Your task to perform on an android device: Open settings on Google Maps Image 0: 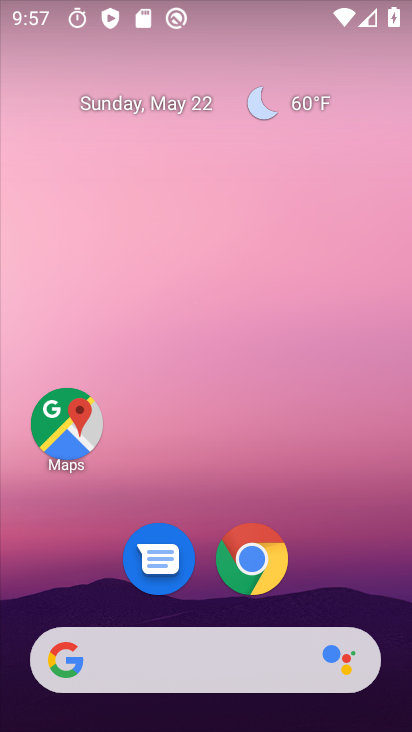
Step 0: click (74, 426)
Your task to perform on an android device: Open settings on Google Maps Image 1: 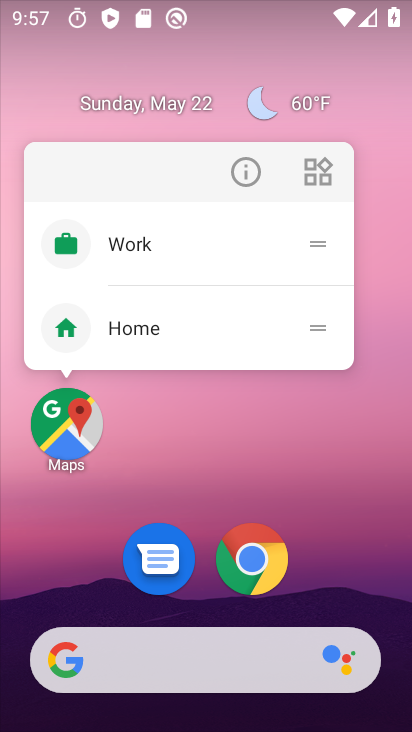
Step 1: click (70, 428)
Your task to perform on an android device: Open settings on Google Maps Image 2: 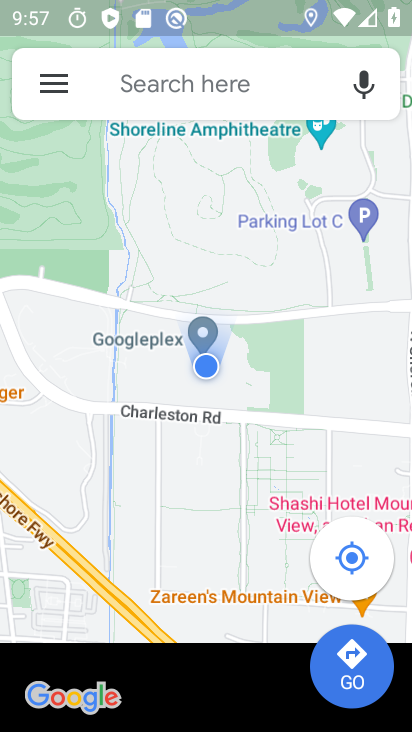
Step 2: click (61, 85)
Your task to perform on an android device: Open settings on Google Maps Image 3: 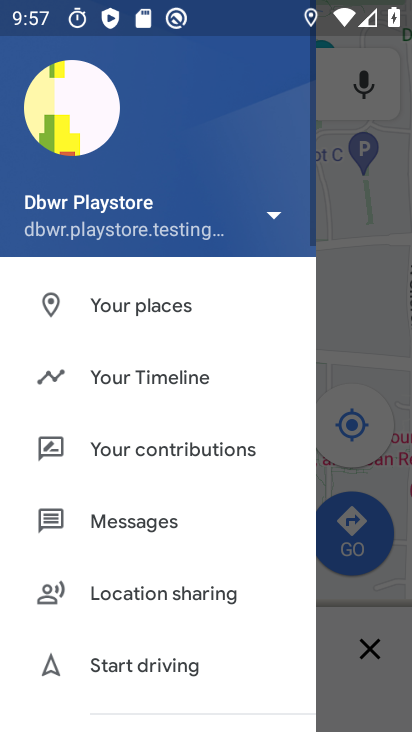
Step 3: drag from (194, 569) to (197, 227)
Your task to perform on an android device: Open settings on Google Maps Image 4: 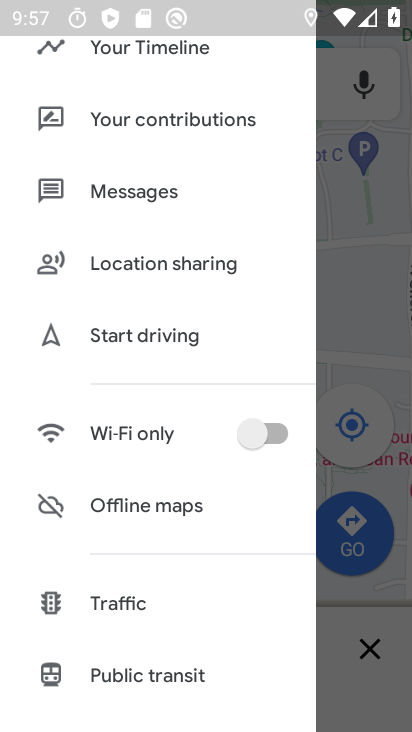
Step 4: drag from (145, 581) to (155, 188)
Your task to perform on an android device: Open settings on Google Maps Image 5: 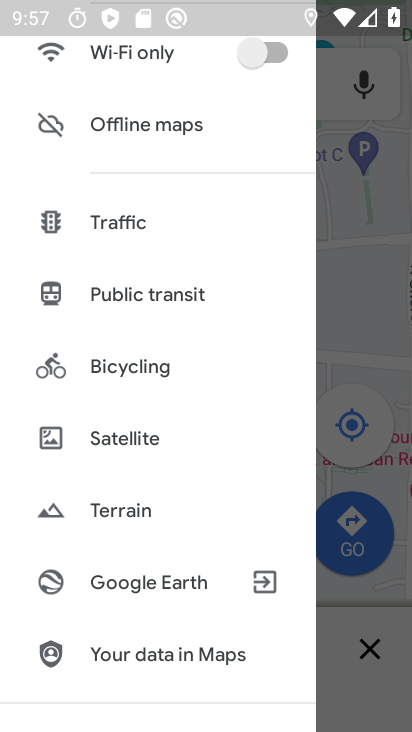
Step 5: drag from (201, 536) to (211, 190)
Your task to perform on an android device: Open settings on Google Maps Image 6: 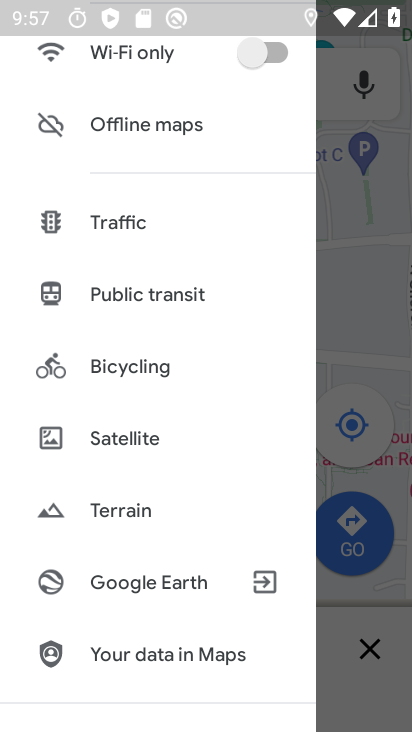
Step 6: drag from (213, 622) to (206, 191)
Your task to perform on an android device: Open settings on Google Maps Image 7: 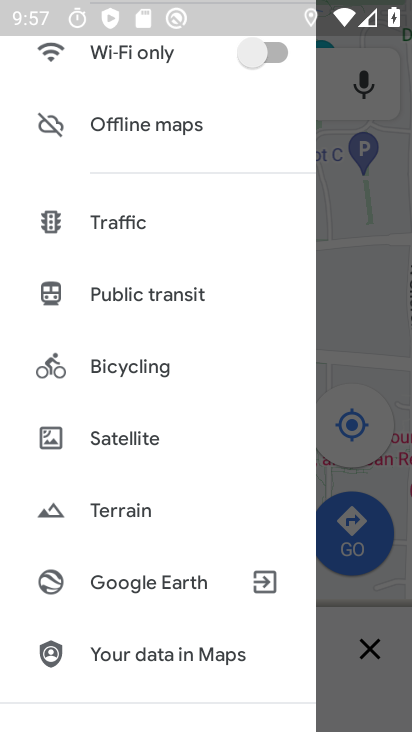
Step 7: drag from (148, 611) to (203, 230)
Your task to perform on an android device: Open settings on Google Maps Image 8: 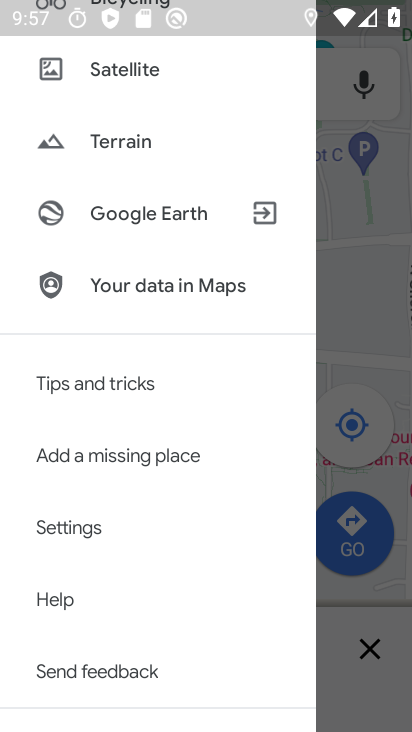
Step 8: click (121, 520)
Your task to perform on an android device: Open settings on Google Maps Image 9: 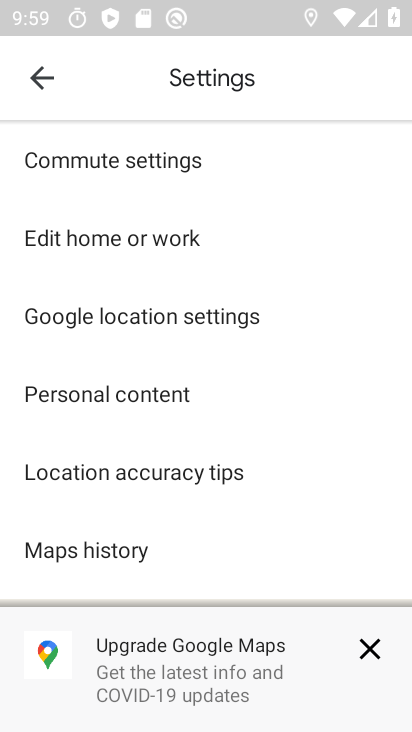
Step 9: task complete